Your task to perform on an android device: toggle airplane mode Image 0: 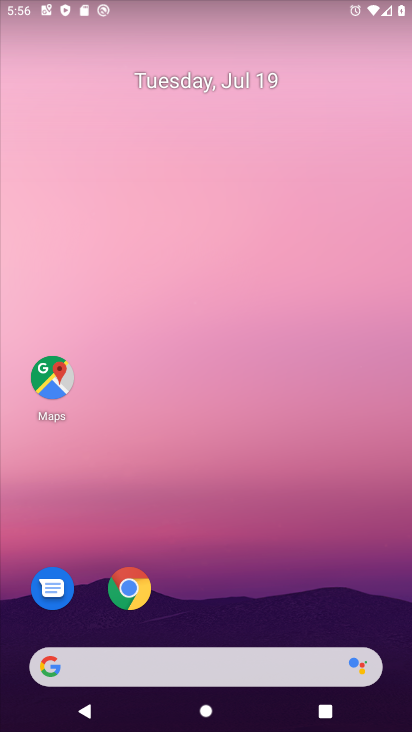
Step 0: drag from (269, 12) to (295, 728)
Your task to perform on an android device: toggle airplane mode Image 1: 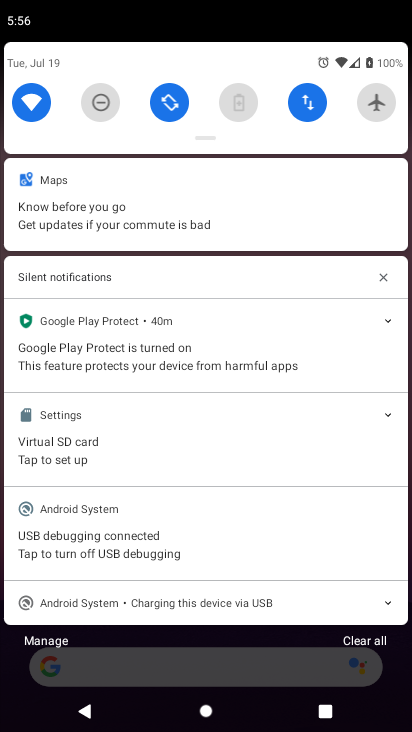
Step 1: click (382, 104)
Your task to perform on an android device: toggle airplane mode Image 2: 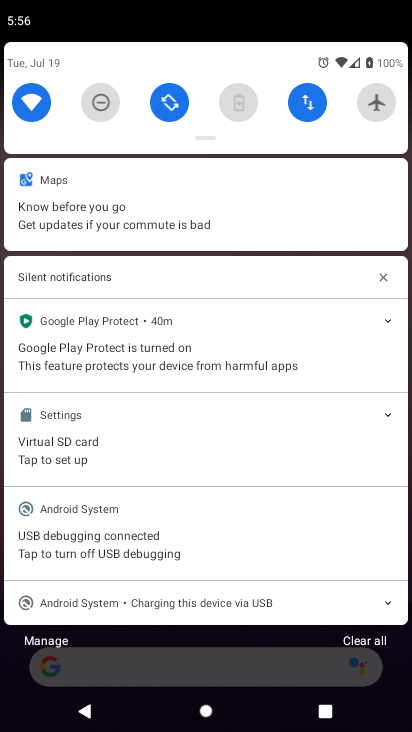
Step 2: click (382, 104)
Your task to perform on an android device: toggle airplane mode Image 3: 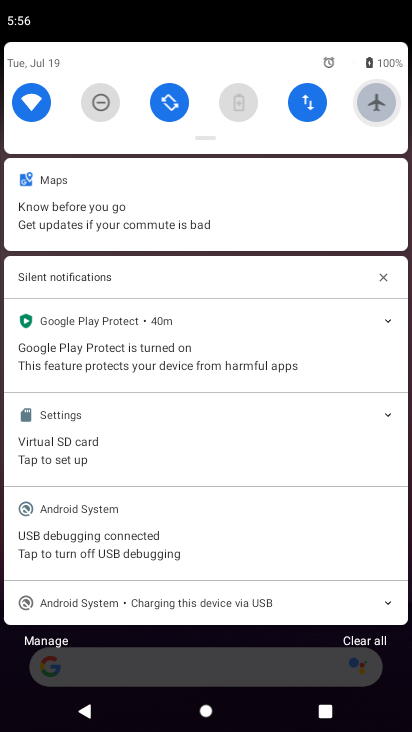
Step 3: click (382, 104)
Your task to perform on an android device: toggle airplane mode Image 4: 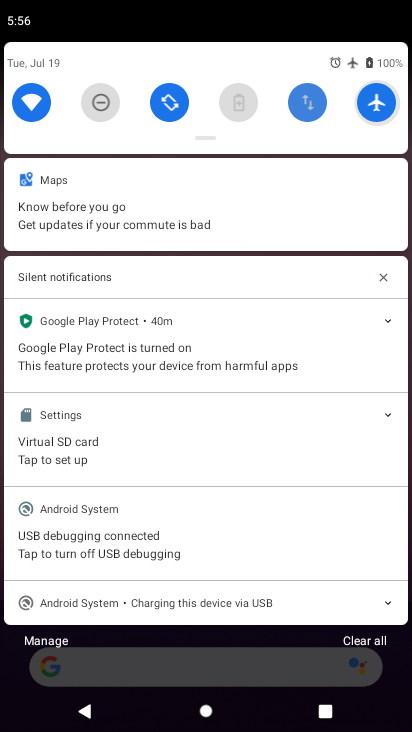
Step 4: click (382, 104)
Your task to perform on an android device: toggle airplane mode Image 5: 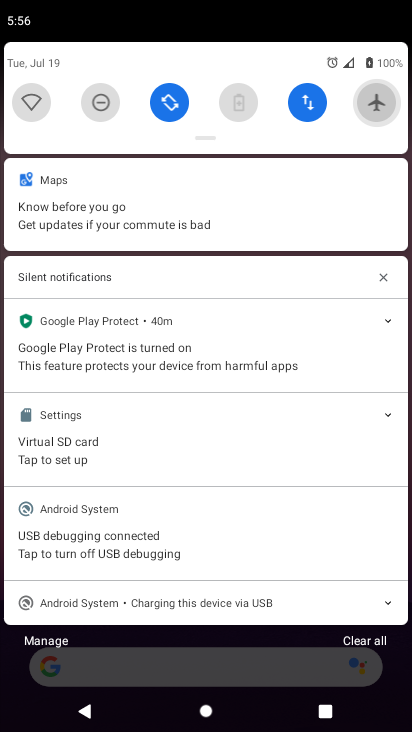
Step 5: click (382, 104)
Your task to perform on an android device: toggle airplane mode Image 6: 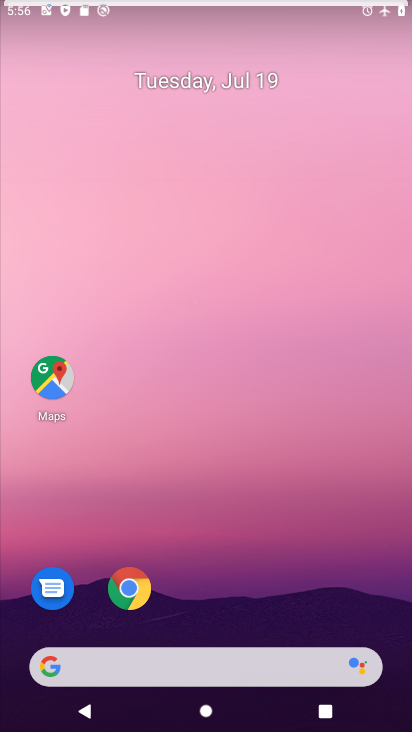
Step 6: click (382, 104)
Your task to perform on an android device: toggle airplane mode Image 7: 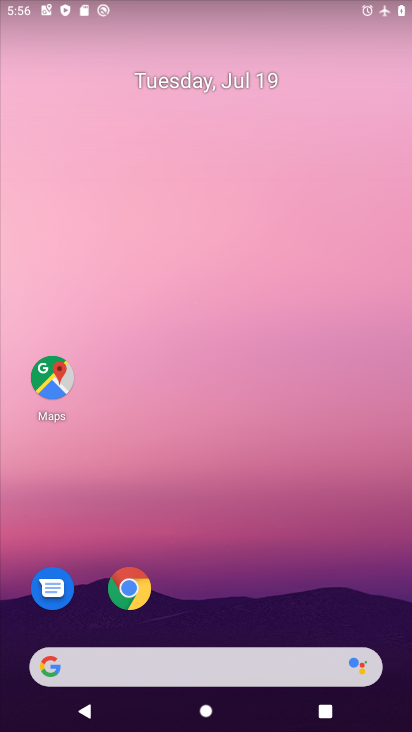
Step 7: click (382, 104)
Your task to perform on an android device: toggle airplane mode Image 8: 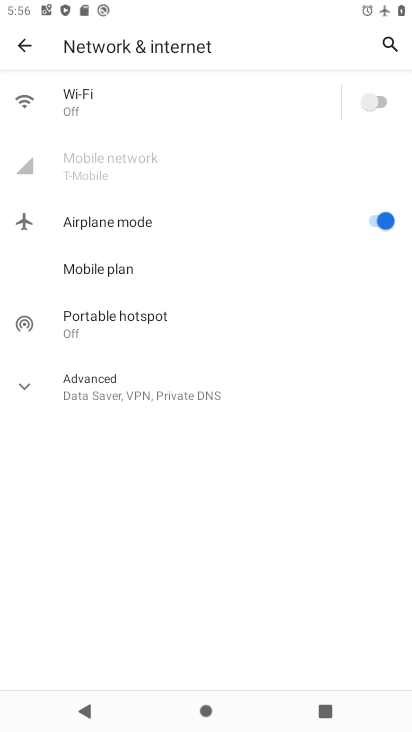
Step 8: drag from (251, 216) to (269, 565)
Your task to perform on an android device: toggle airplane mode Image 9: 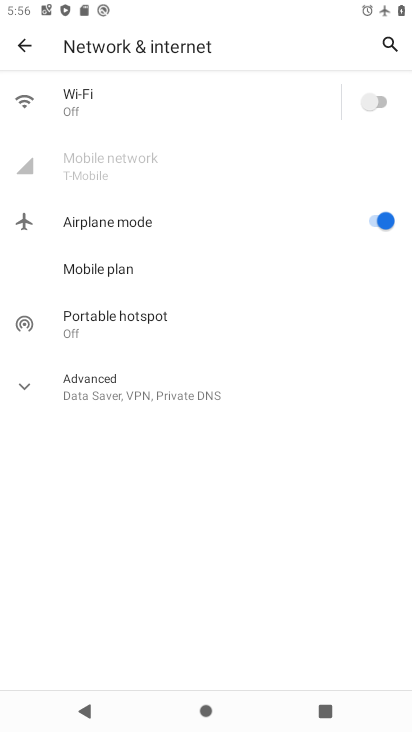
Step 9: drag from (256, 0) to (291, 341)
Your task to perform on an android device: toggle airplane mode Image 10: 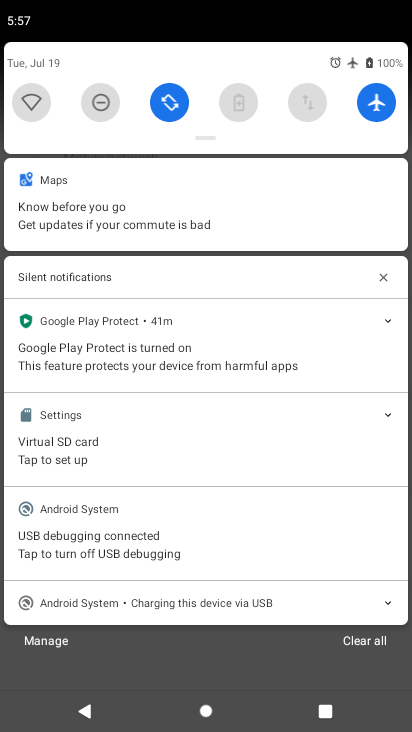
Step 10: click (377, 98)
Your task to perform on an android device: toggle airplane mode Image 11: 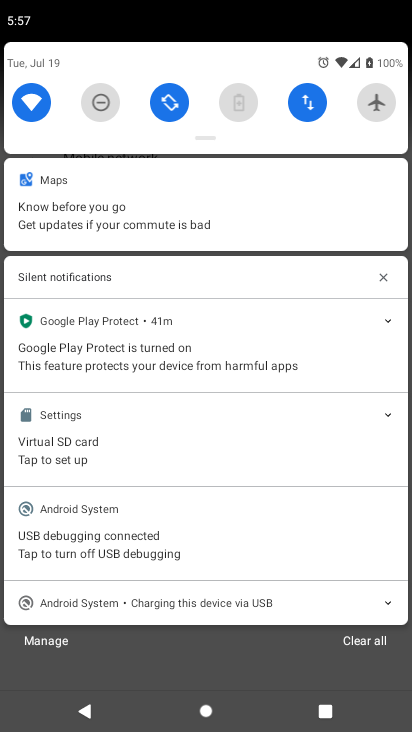
Step 11: task complete